Your task to perform on an android device: Search for seafood restaurants on Google Maps Image 0: 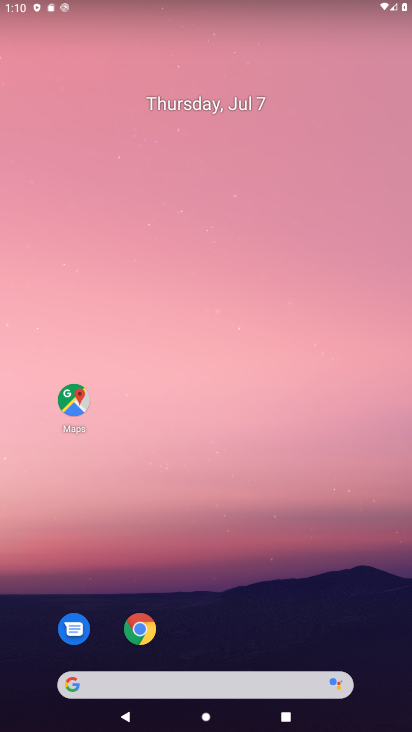
Step 0: click (268, 19)
Your task to perform on an android device: Search for seafood restaurants on Google Maps Image 1: 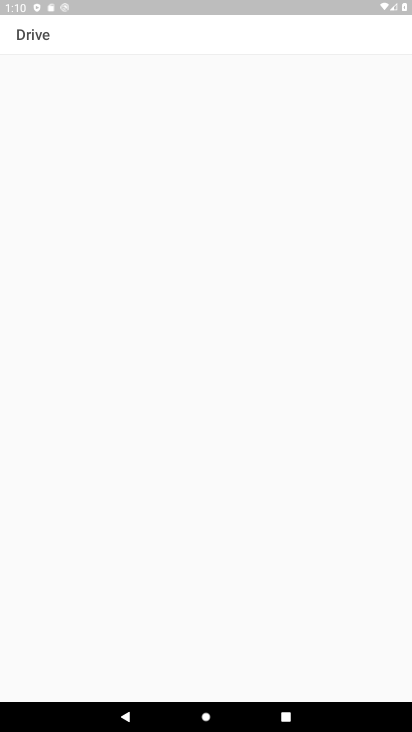
Step 1: press home button
Your task to perform on an android device: Search for seafood restaurants on Google Maps Image 2: 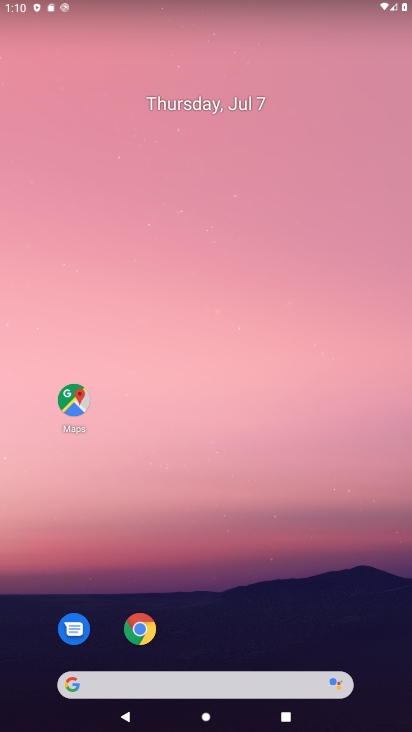
Step 2: drag from (260, 613) to (305, 45)
Your task to perform on an android device: Search for seafood restaurants on Google Maps Image 3: 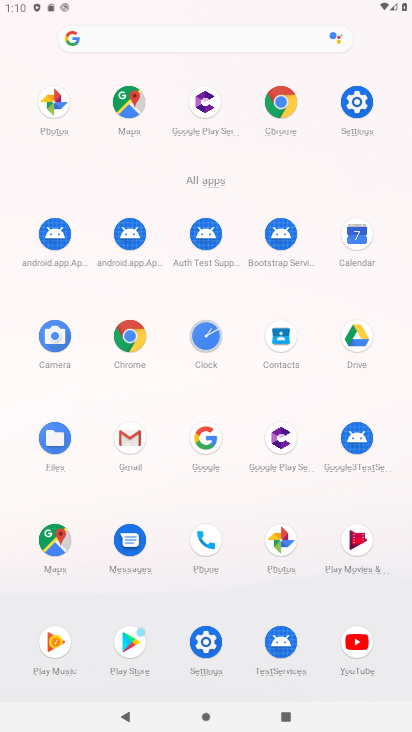
Step 3: click (281, 101)
Your task to perform on an android device: Search for seafood restaurants on Google Maps Image 4: 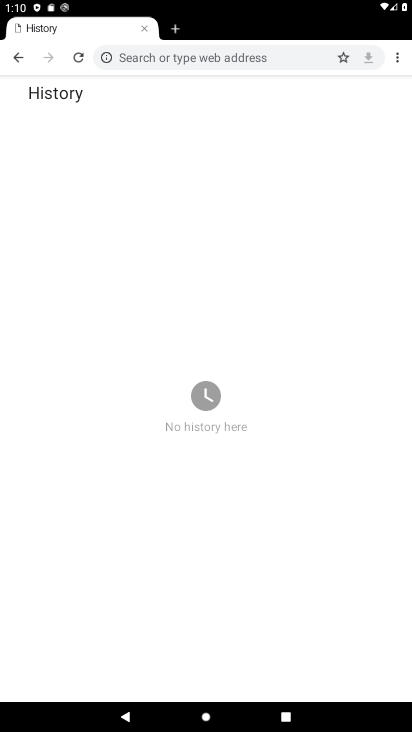
Step 4: press home button
Your task to perform on an android device: Search for seafood restaurants on Google Maps Image 5: 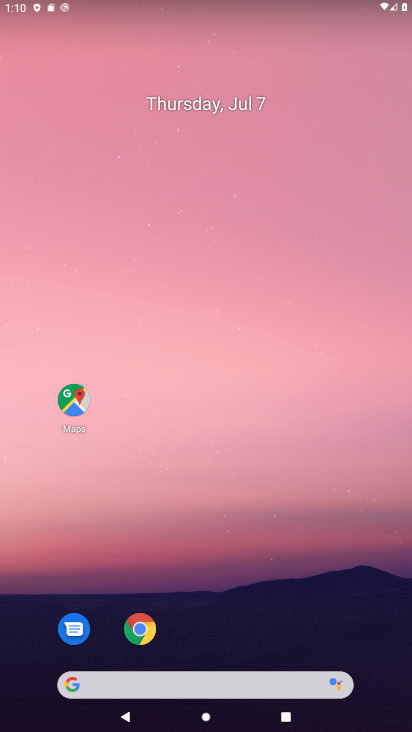
Step 5: click (82, 401)
Your task to perform on an android device: Search for seafood restaurants on Google Maps Image 6: 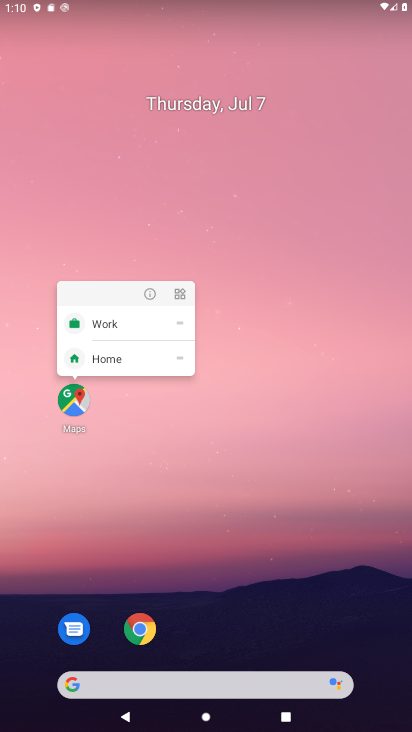
Step 6: click (74, 395)
Your task to perform on an android device: Search for seafood restaurants on Google Maps Image 7: 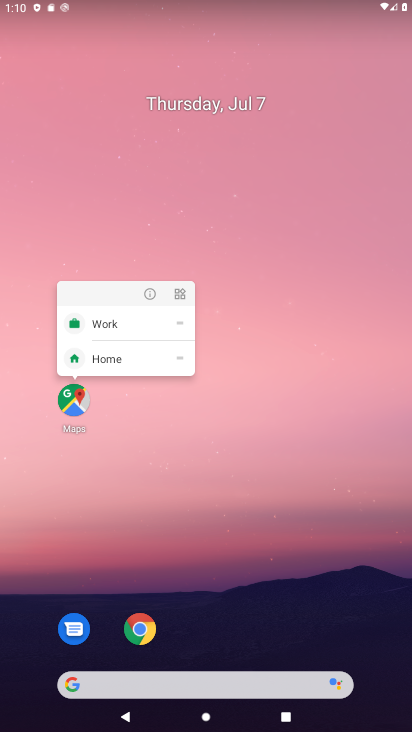
Step 7: click (68, 396)
Your task to perform on an android device: Search for seafood restaurants on Google Maps Image 8: 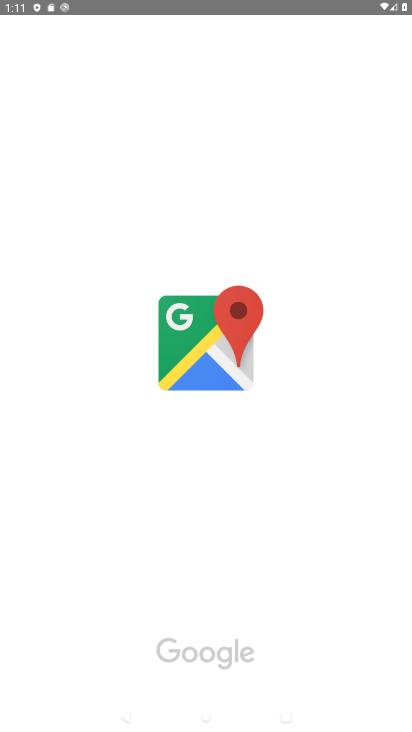
Step 8: task complete